Your task to perform on an android device: Open location settings Image 0: 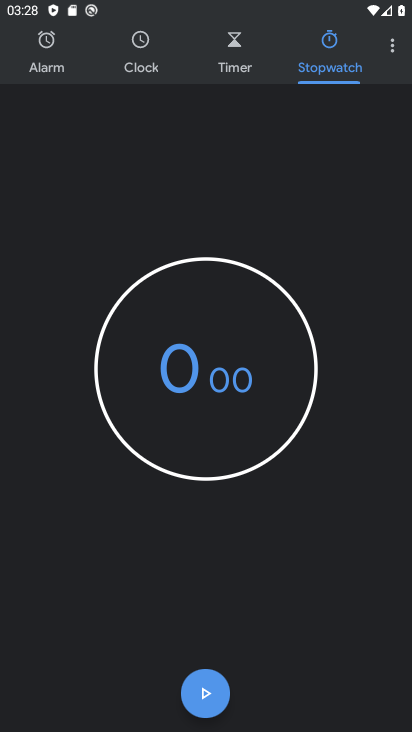
Step 0: press home button
Your task to perform on an android device: Open location settings Image 1: 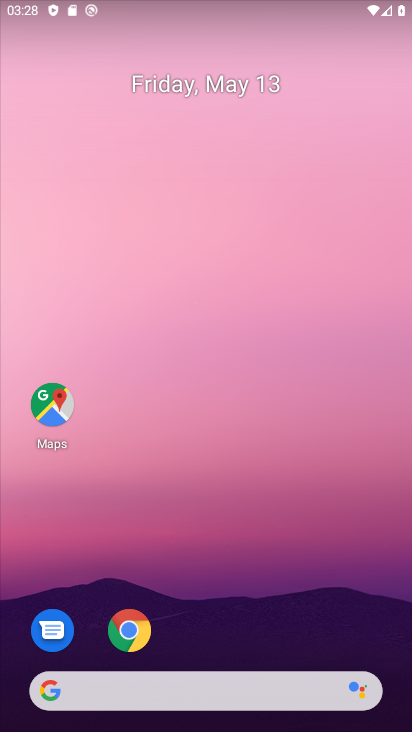
Step 1: drag from (220, 656) to (187, 101)
Your task to perform on an android device: Open location settings Image 2: 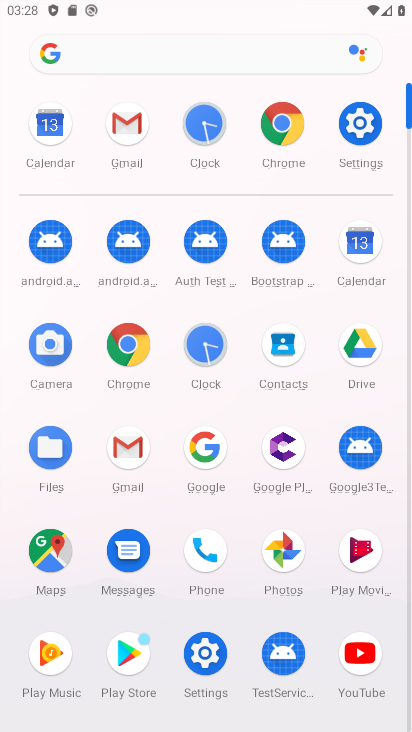
Step 2: click (362, 126)
Your task to perform on an android device: Open location settings Image 3: 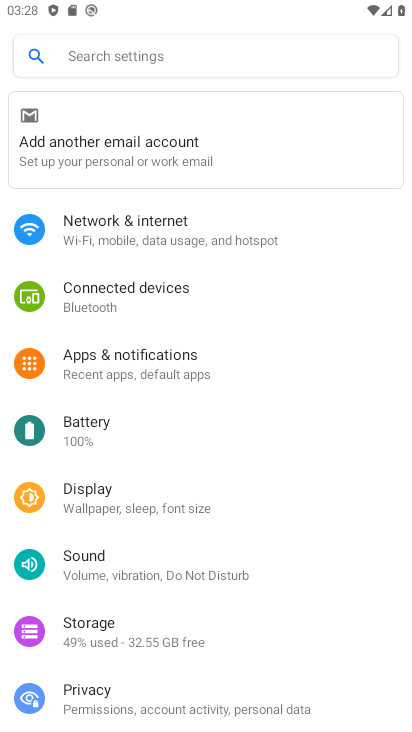
Step 3: drag from (145, 660) to (134, 217)
Your task to perform on an android device: Open location settings Image 4: 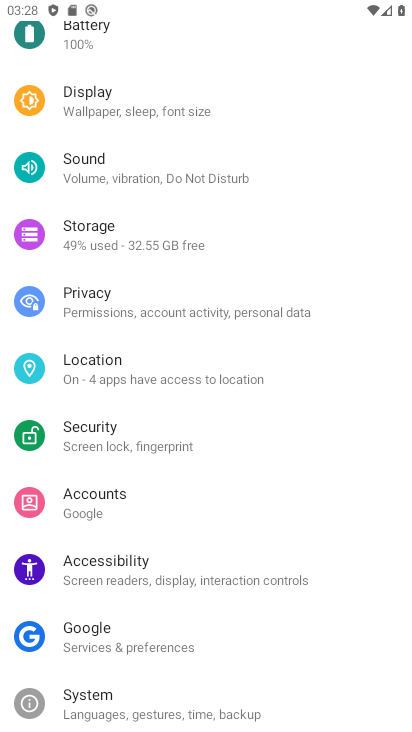
Step 4: click (89, 356)
Your task to perform on an android device: Open location settings Image 5: 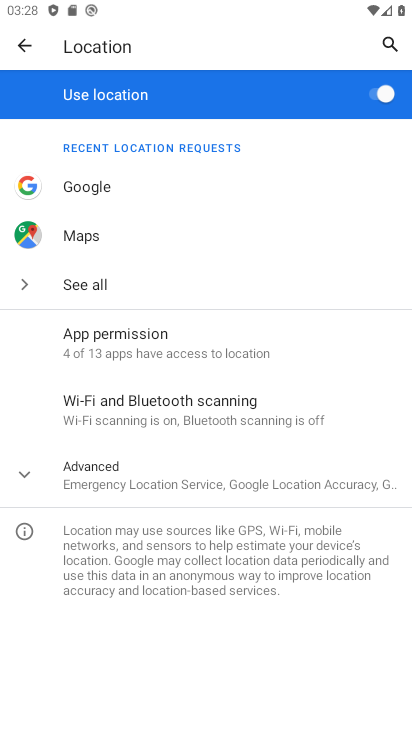
Step 5: click (91, 295)
Your task to perform on an android device: Open location settings Image 6: 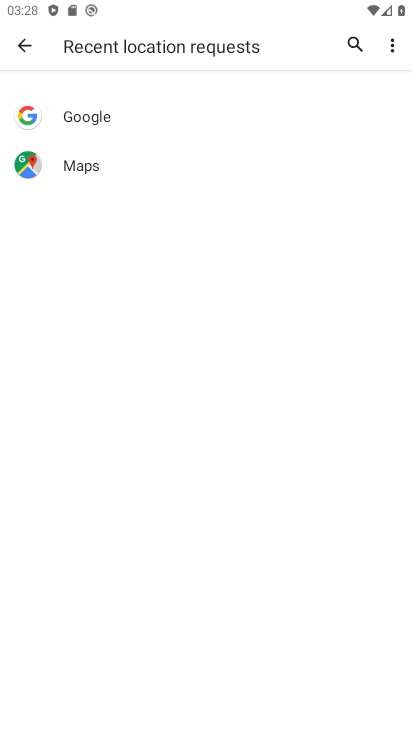
Step 6: click (32, 40)
Your task to perform on an android device: Open location settings Image 7: 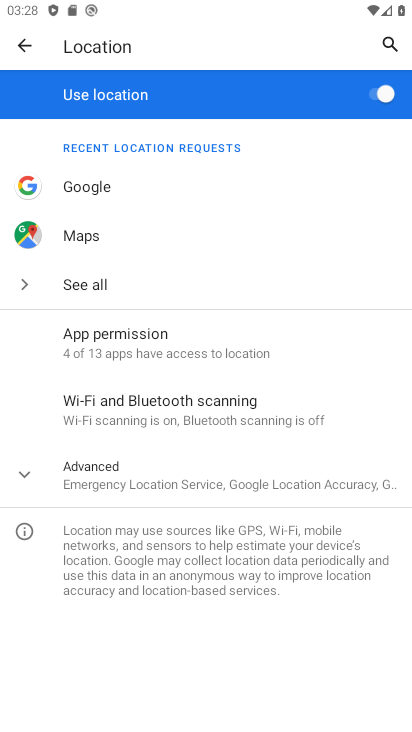
Step 7: task complete